Your task to perform on an android device: check google app version Image 0: 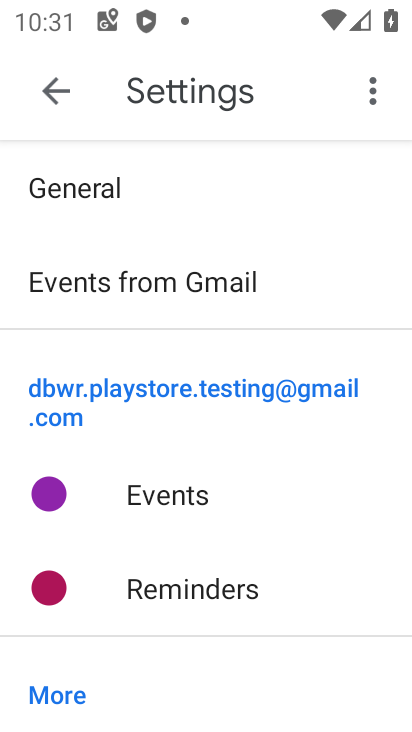
Step 0: press home button
Your task to perform on an android device: check google app version Image 1: 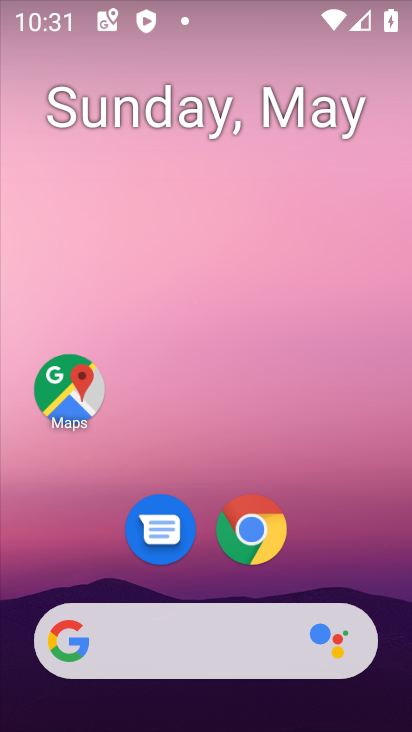
Step 1: drag from (204, 623) to (184, 83)
Your task to perform on an android device: check google app version Image 2: 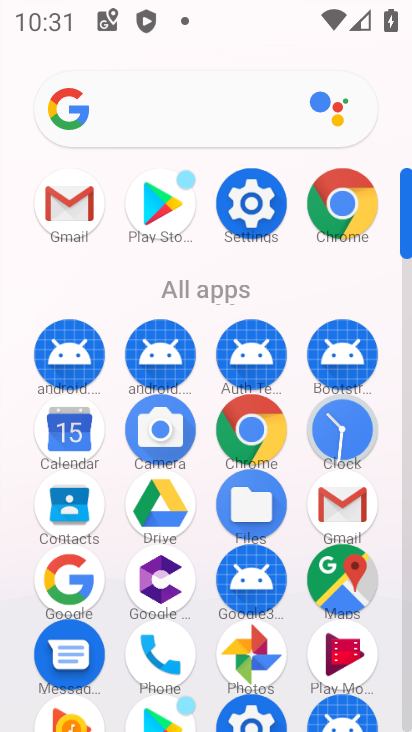
Step 2: click (85, 600)
Your task to perform on an android device: check google app version Image 3: 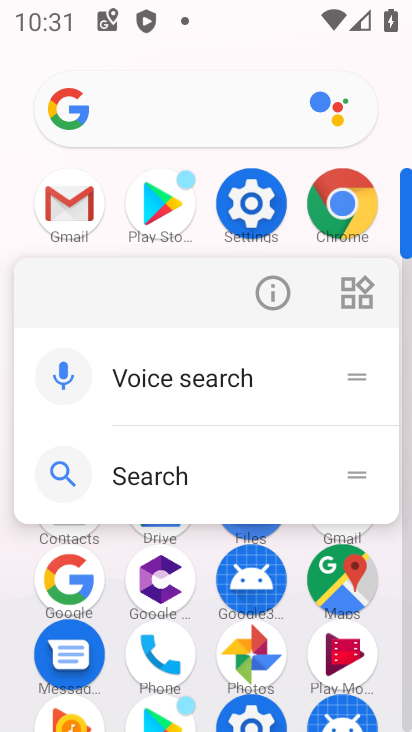
Step 3: click (268, 289)
Your task to perform on an android device: check google app version Image 4: 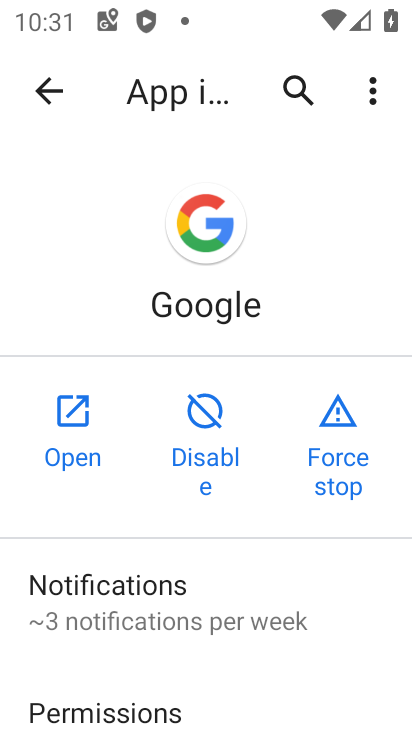
Step 4: drag from (186, 715) to (95, 0)
Your task to perform on an android device: check google app version Image 5: 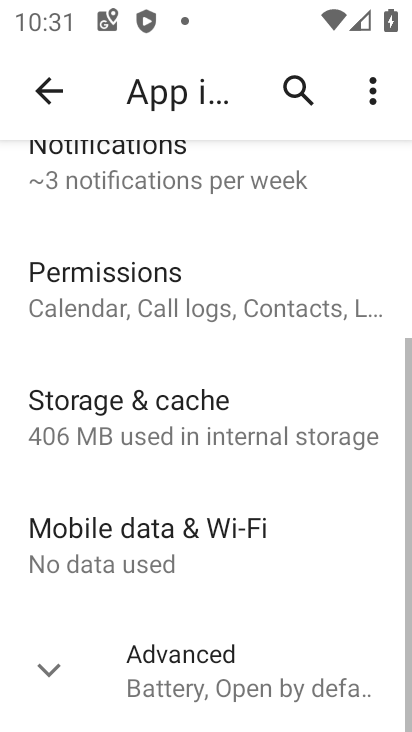
Step 5: drag from (217, 555) to (25, 5)
Your task to perform on an android device: check google app version Image 6: 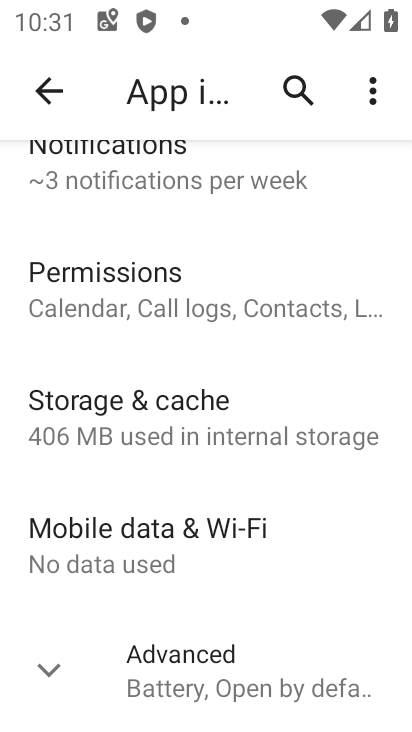
Step 6: click (156, 661)
Your task to perform on an android device: check google app version Image 7: 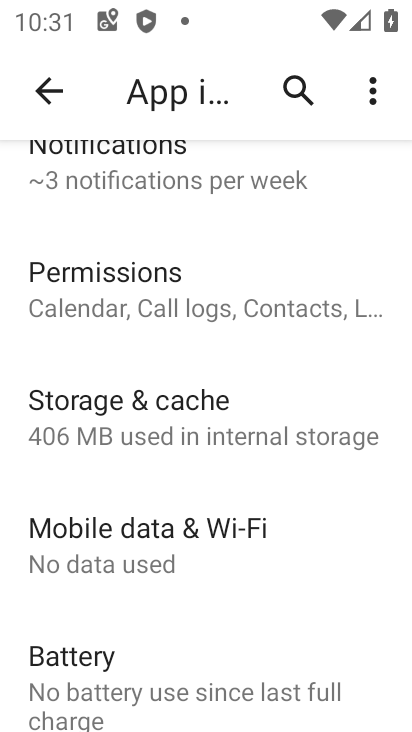
Step 7: task complete